Your task to perform on an android device: remove spam from my inbox in the gmail app Image 0: 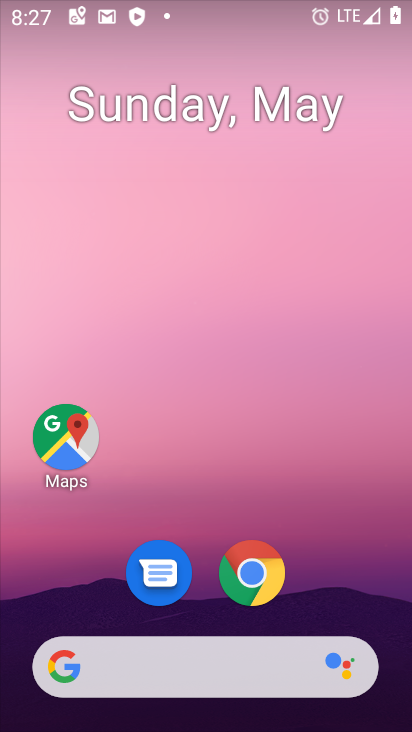
Step 0: drag from (208, 512) to (268, 0)
Your task to perform on an android device: remove spam from my inbox in the gmail app Image 1: 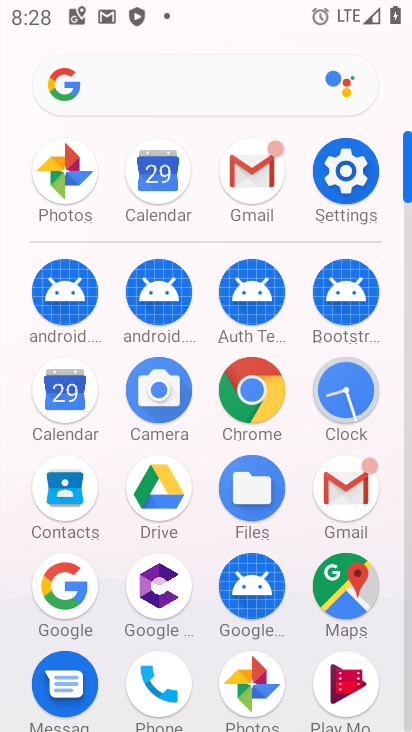
Step 1: click (254, 173)
Your task to perform on an android device: remove spam from my inbox in the gmail app Image 2: 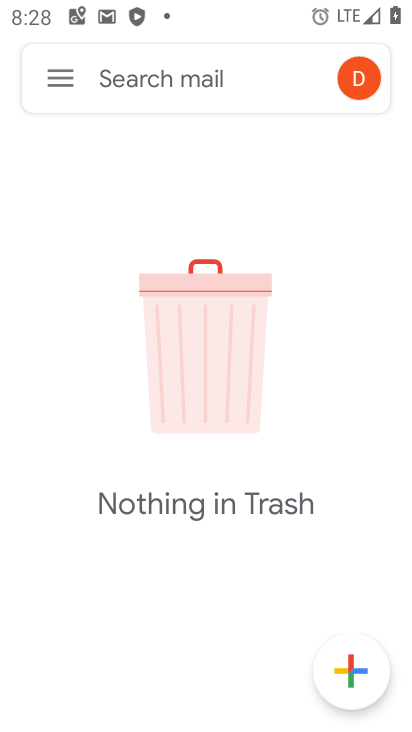
Step 2: click (63, 79)
Your task to perform on an android device: remove spam from my inbox in the gmail app Image 3: 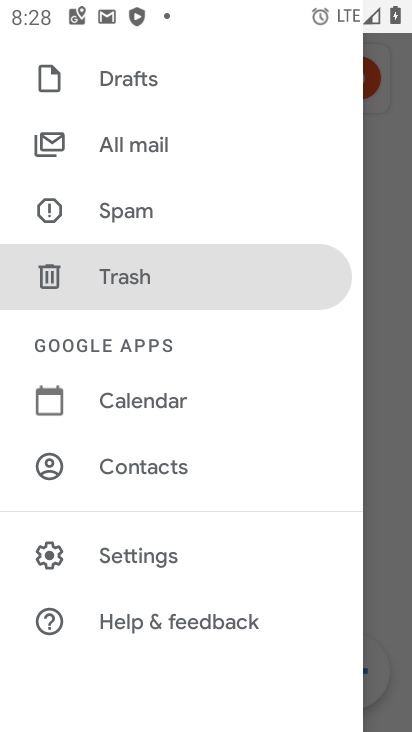
Step 3: click (150, 213)
Your task to perform on an android device: remove spam from my inbox in the gmail app Image 4: 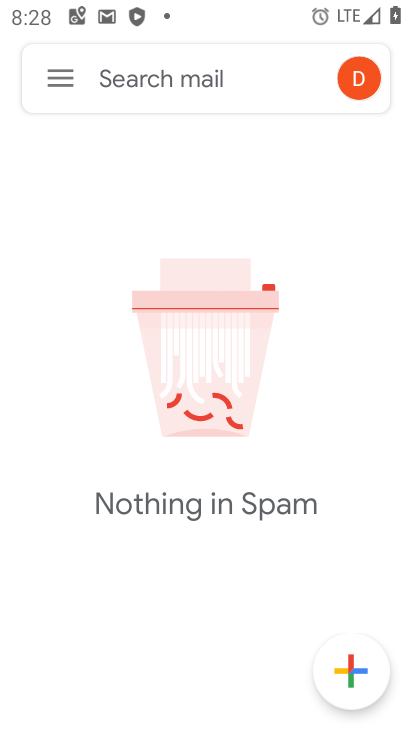
Step 4: task complete